Your task to perform on an android device: move an email to a new category in the gmail app Image 0: 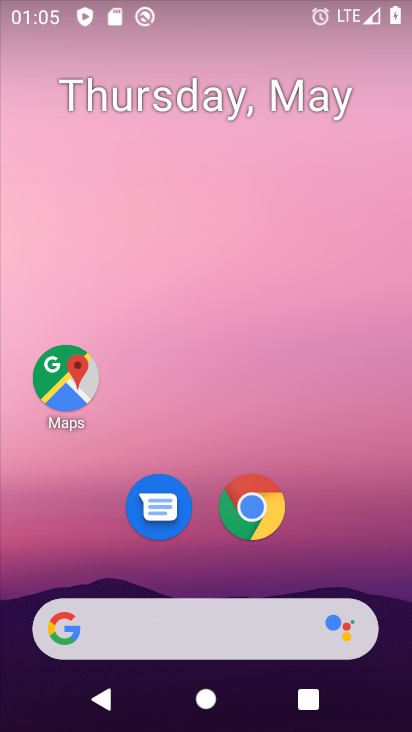
Step 0: drag from (207, 579) to (227, 224)
Your task to perform on an android device: move an email to a new category in the gmail app Image 1: 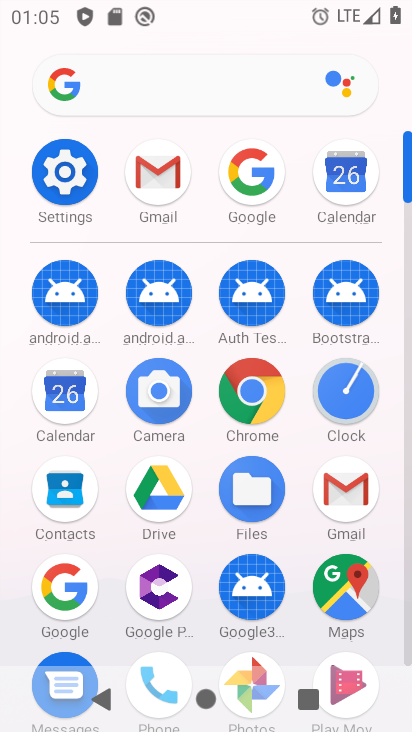
Step 1: click (160, 179)
Your task to perform on an android device: move an email to a new category in the gmail app Image 2: 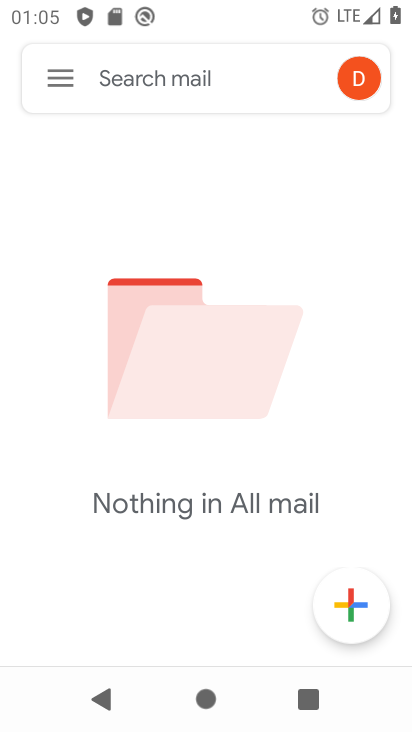
Step 2: click (68, 87)
Your task to perform on an android device: move an email to a new category in the gmail app Image 3: 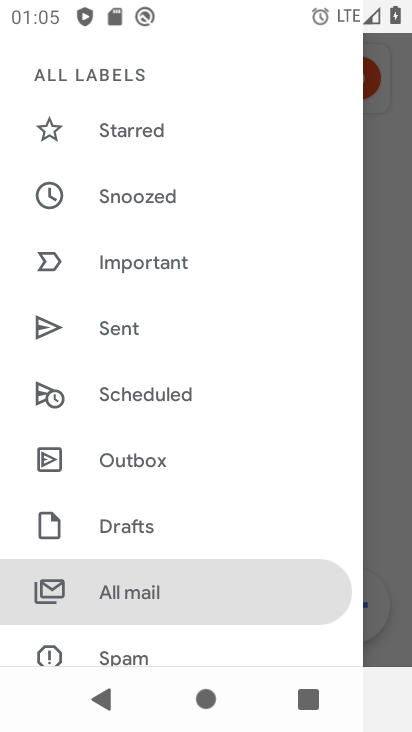
Step 3: click (133, 234)
Your task to perform on an android device: move an email to a new category in the gmail app Image 4: 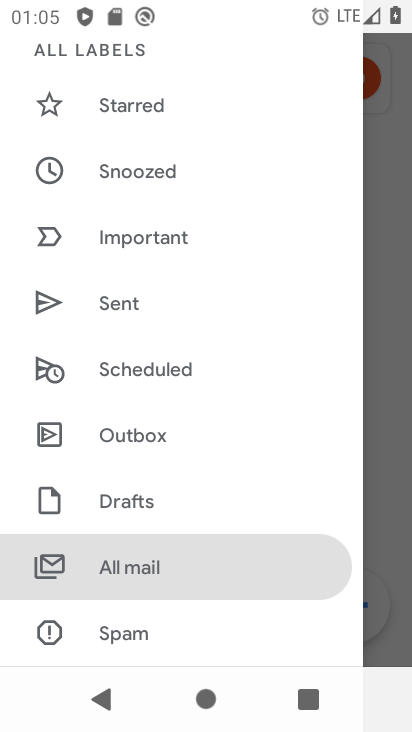
Step 4: click (149, 550)
Your task to perform on an android device: move an email to a new category in the gmail app Image 5: 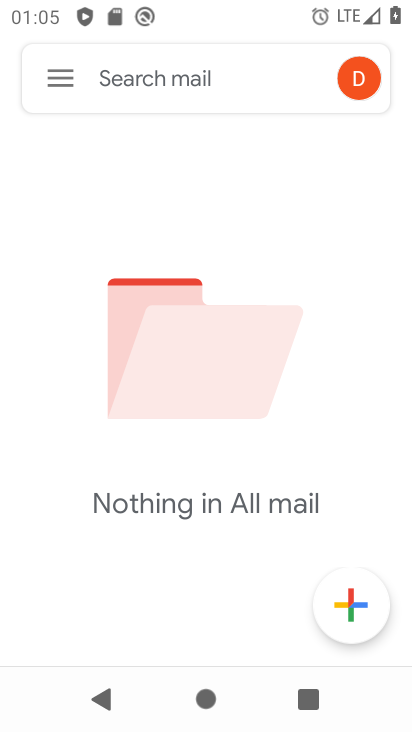
Step 5: task complete